Your task to perform on an android device: turn off data saver in the chrome app Image 0: 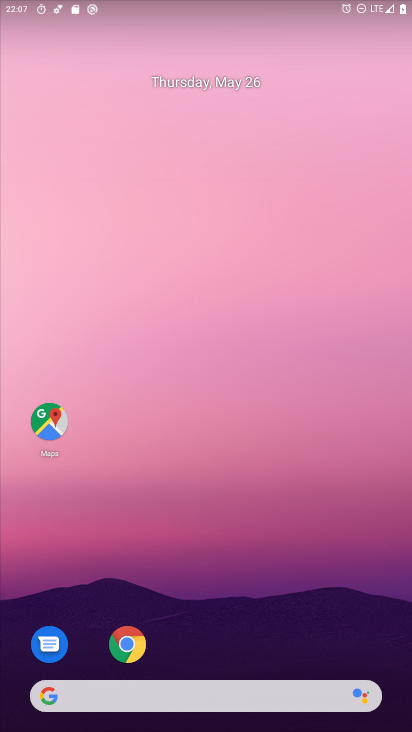
Step 0: click (298, 134)
Your task to perform on an android device: turn off data saver in the chrome app Image 1: 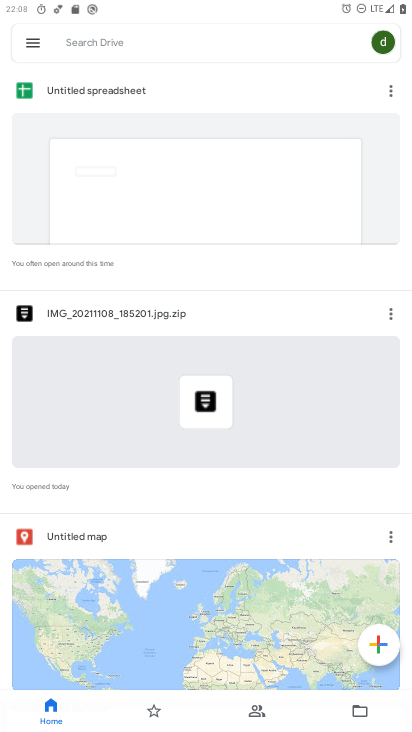
Step 1: drag from (215, 619) to (259, 267)
Your task to perform on an android device: turn off data saver in the chrome app Image 2: 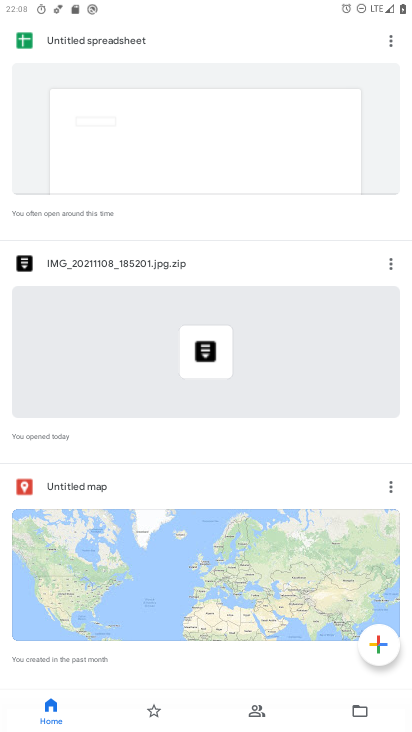
Step 2: drag from (247, 191) to (196, 665)
Your task to perform on an android device: turn off data saver in the chrome app Image 3: 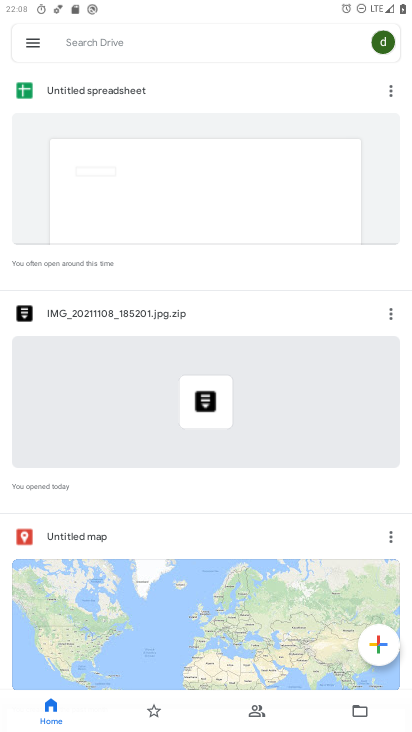
Step 3: press home button
Your task to perform on an android device: turn off data saver in the chrome app Image 4: 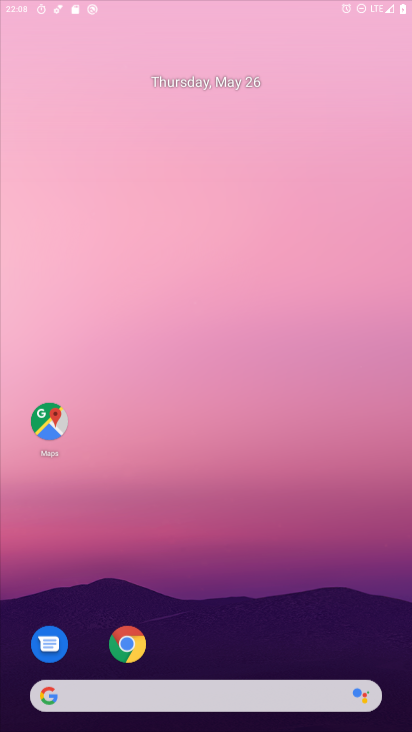
Step 4: drag from (222, 611) to (329, 103)
Your task to perform on an android device: turn off data saver in the chrome app Image 5: 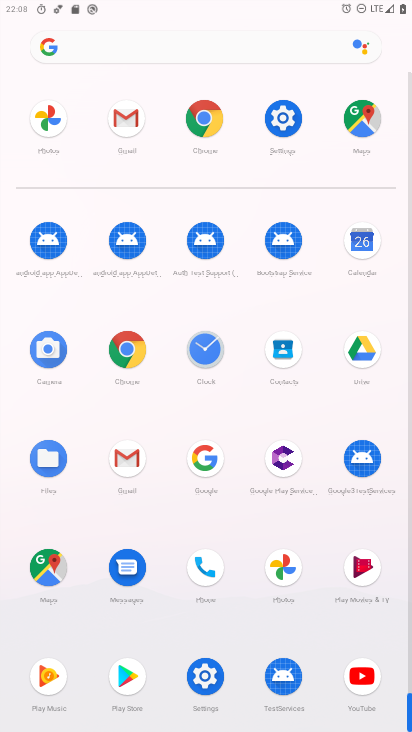
Step 5: click (195, 116)
Your task to perform on an android device: turn off data saver in the chrome app Image 6: 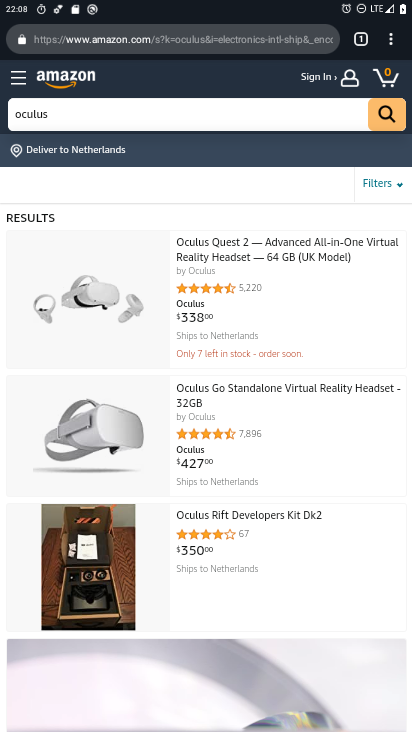
Step 6: drag from (395, 45) to (279, 431)
Your task to perform on an android device: turn off data saver in the chrome app Image 7: 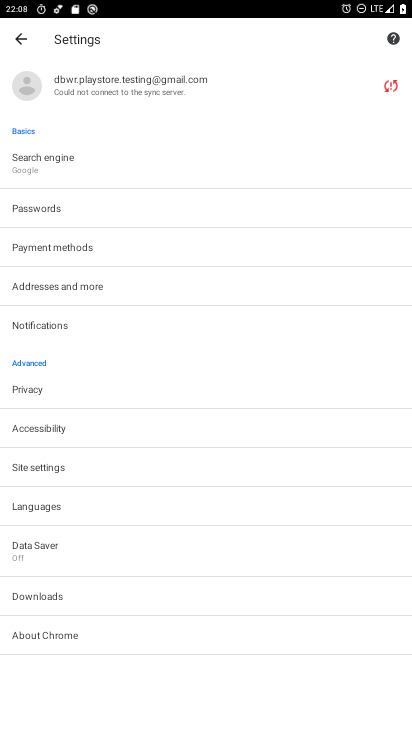
Step 7: click (120, 550)
Your task to perform on an android device: turn off data saver in the chrome app Image 8: 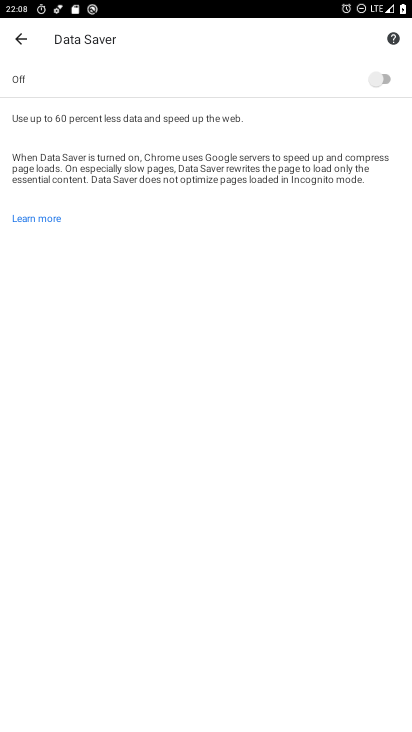
Step 8: task complete